Your task to perform on an android device: see sites visited before in the chrome app Image 0: 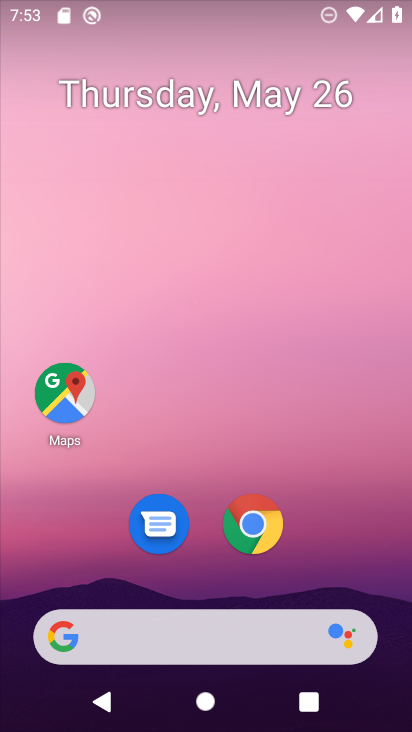
Step 0: click (253, 516)
Your task to perform on an android device: see sites visited before in the chrome app Image 1: 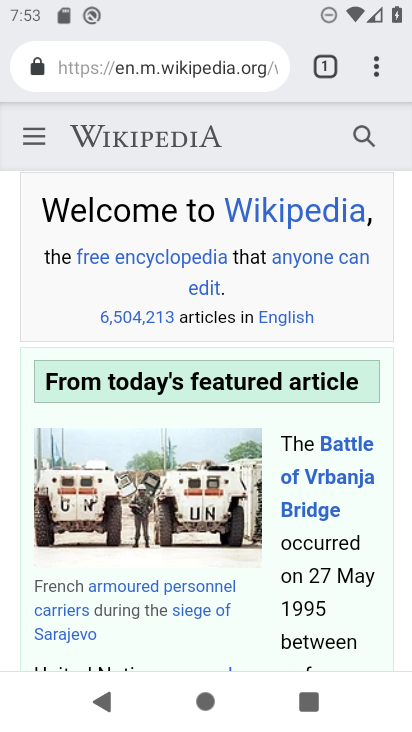
Step 1: click (369, 62)
Your task to perform on an android device: see sites visited before in the chrome app Image 2: 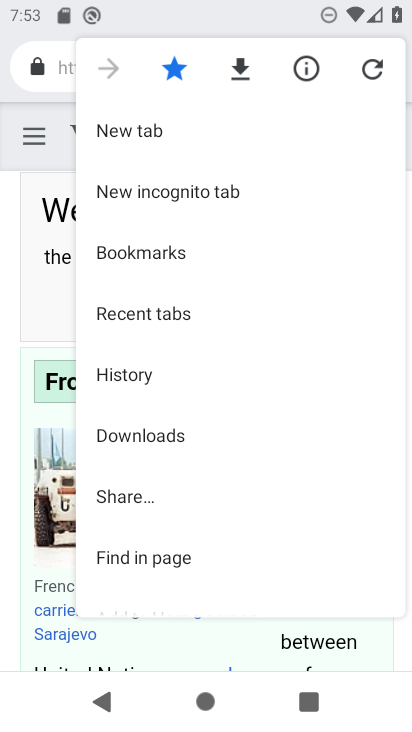
Step 2: click (160, 306)
Your task to perform on an android device: see sites visited before in the chrome app Image 3: 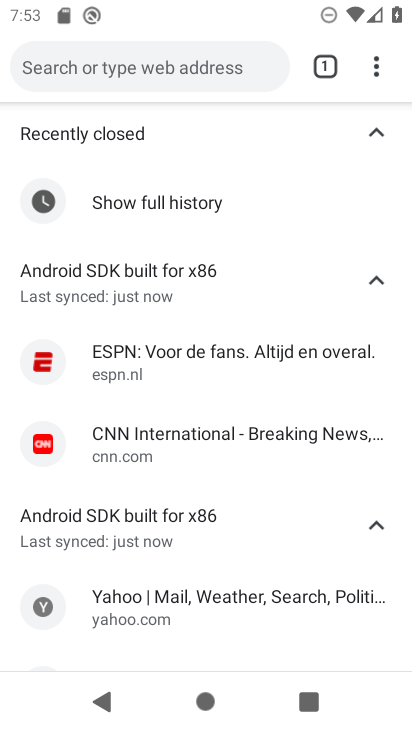
Step 3: task complete